Your task to perform on an android device: Open the calendar and show me this week's events? Image 0: 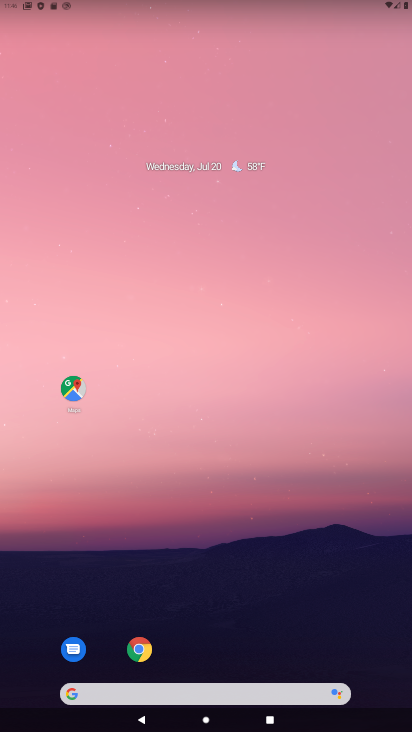
Step 0: drag from (200, 659) to (219, 8)
Your task to perform on an android device: Open the calendar and show me this week's events? Image 1: 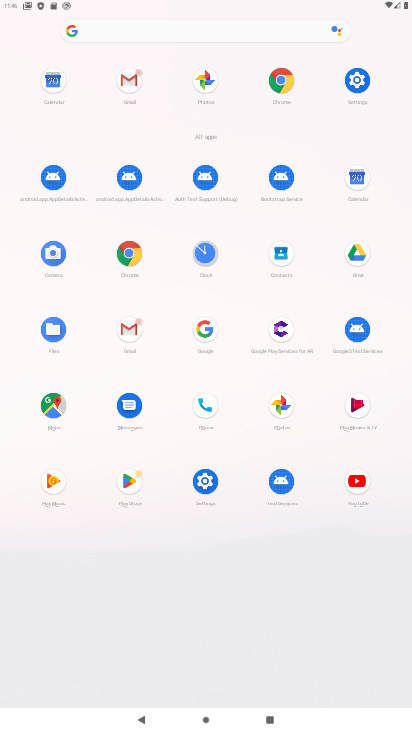
Step 1: click (355, 179)
Your task to perform on an android device: Open the calendar and show me this week's events? Image 2: 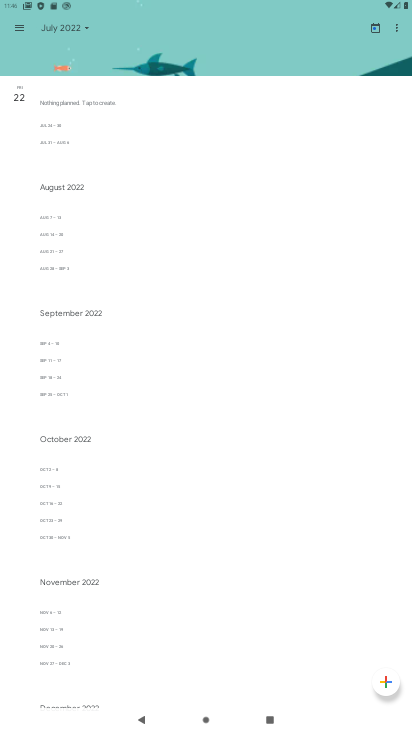
Step 2: click (74, 30)
Your task to perform on an android device: Open the calendar and show me this week's events? Image 3: 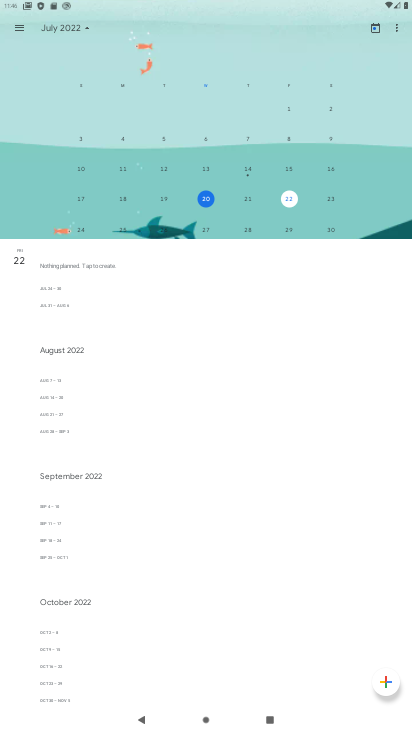
Step 3: click (249, 201)
Your task to perform on an android device: Open the calendar and show me this week's events? Image 4: 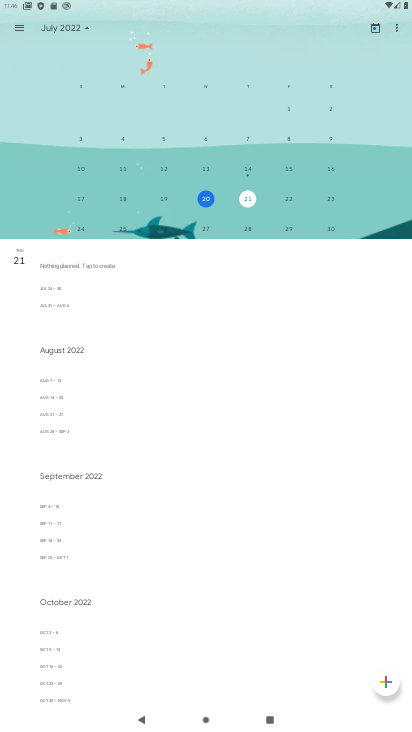
Step 4: task complete